Your task to perform on an android device: Open calendar and show me the fourth week of next month Image 0: 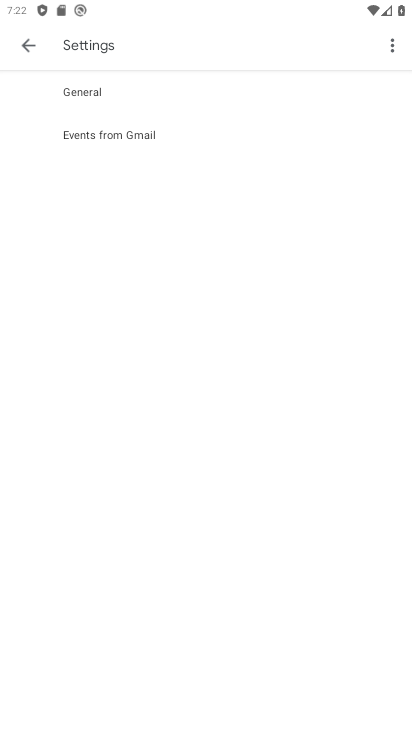
Step 0: drag from (237, 660) to (254, 627)
Your task to perform on an android device: Open calendar and show me the fourth week of next month Image 1: 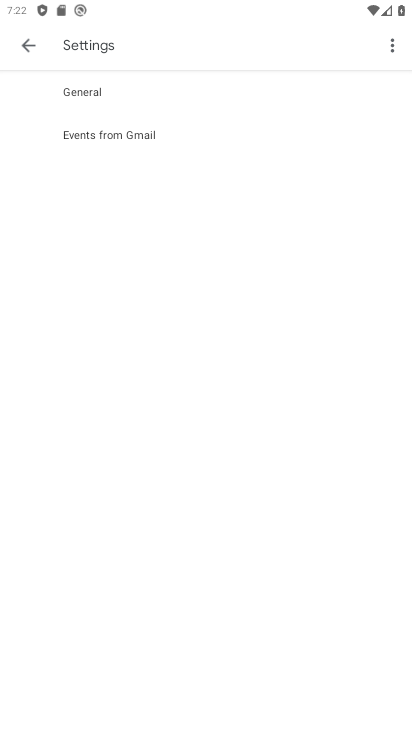
Step 1: press home button
Your task to perform on an android device: Open calendar and show me the fourth week of next month Image 2: 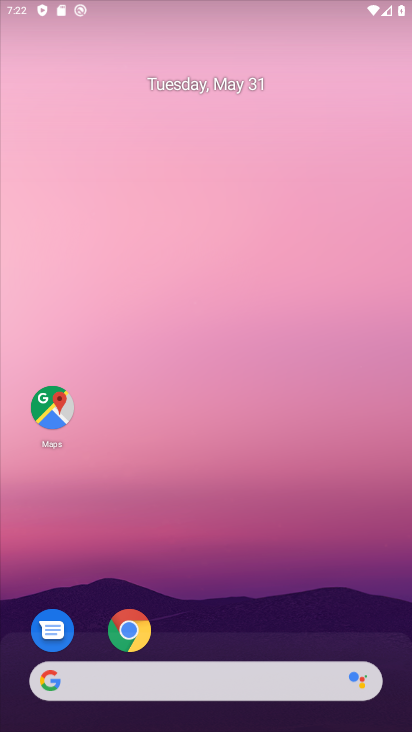
Step 2: drag from (255, 654) to (276, 270)
Your task to perform on an android device: Open calendar and show me the fourth week of next month Image 3: 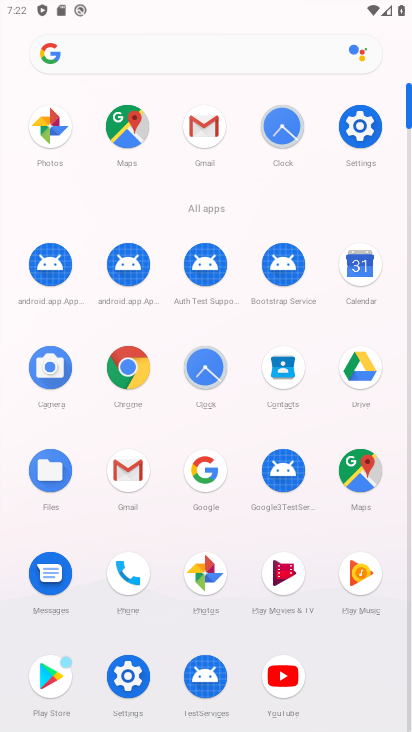
Step 3: click (363, 270)
Your task to perform on an android device: Open calendar and show me the fourth week of next month Image 4: 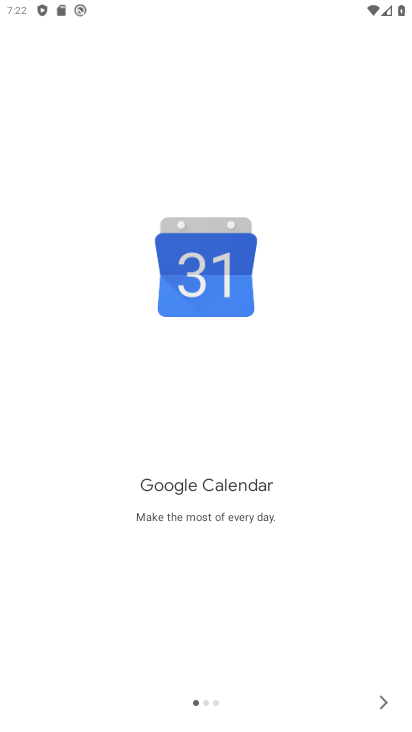
Step 4: click (365, 703)
Your task to perform on an android device: Open calendar and show me the fourth week of next month Image 5: 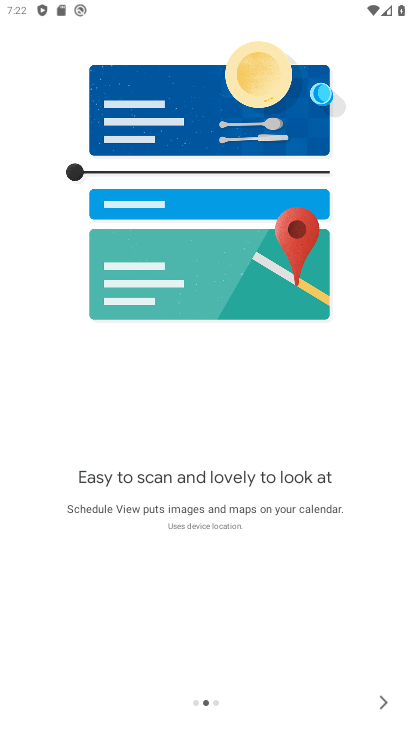
Step 5: click (376, 706)
Your task to perform on an android device: Open calendar and show me the fourth week of next month Image 6: 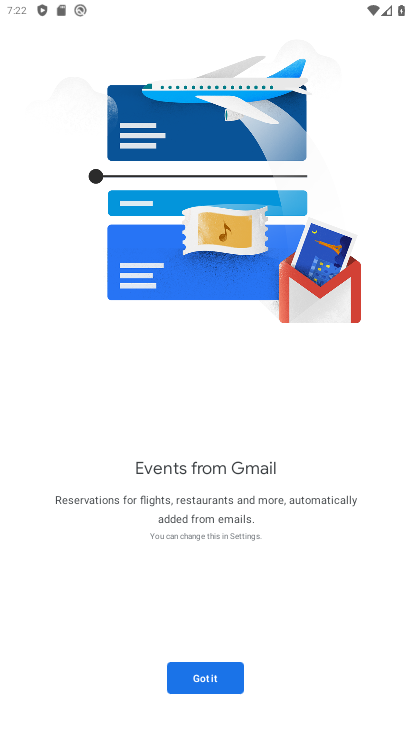
Step 6: click (214, 669)
Your task to perform on an android device: Open calendar and show me the fourth week of next month Image 7: 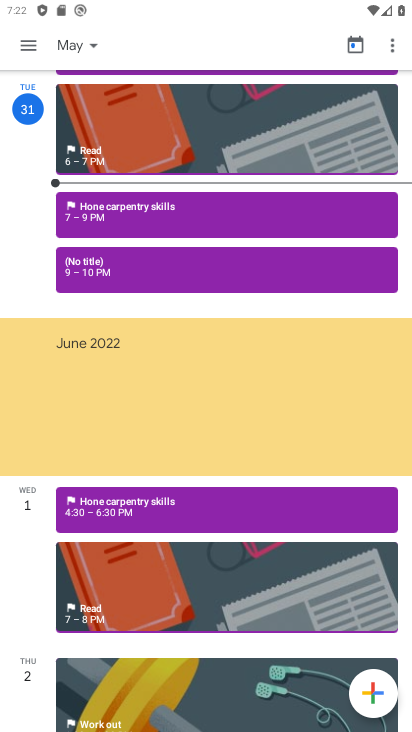
Step 7: click (27, 36)
Your task to perform on an android device: Open calendar and show me the fourth week of next month Image 8: 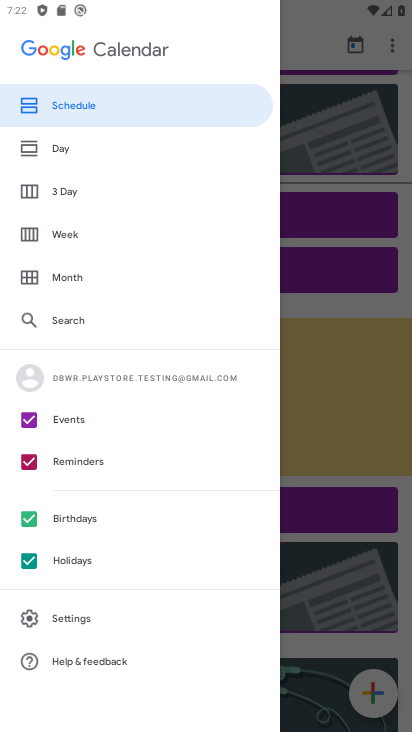
Step 8: click (73, 267)
Your task to perform on an android device: Open calendar and show me the fourth week of next month Image 9: 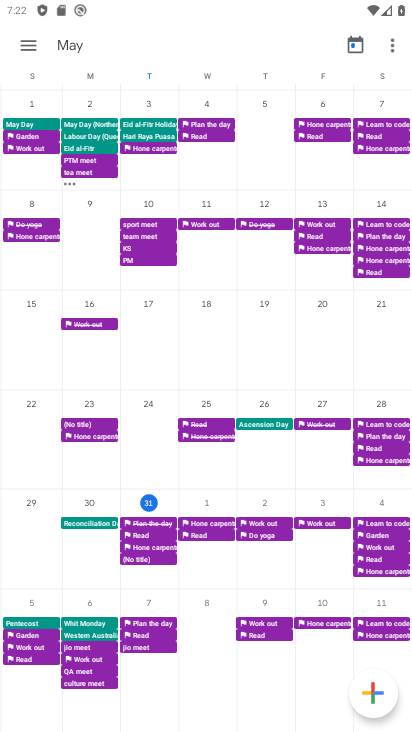
Step 9: task complete